Your task to perform on an android device: check android version Image 0: 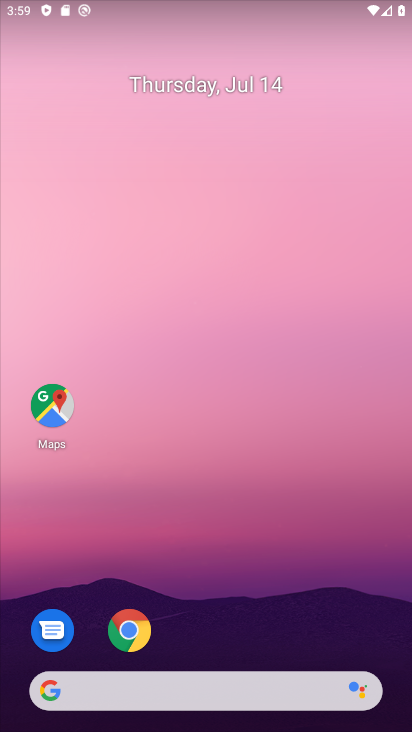
Step 0: drag from (217, 654) to (239, 6)
Your task to perform on an android device: check android version Image 1: 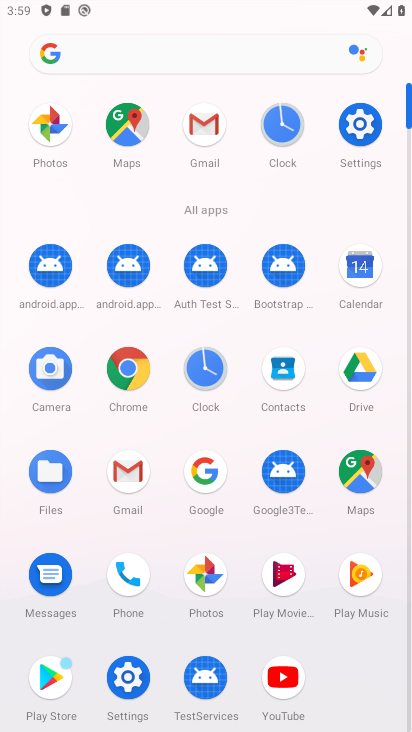
Step 1: click (362, 119)
Your task to perform on an android device: check android version Image 2: 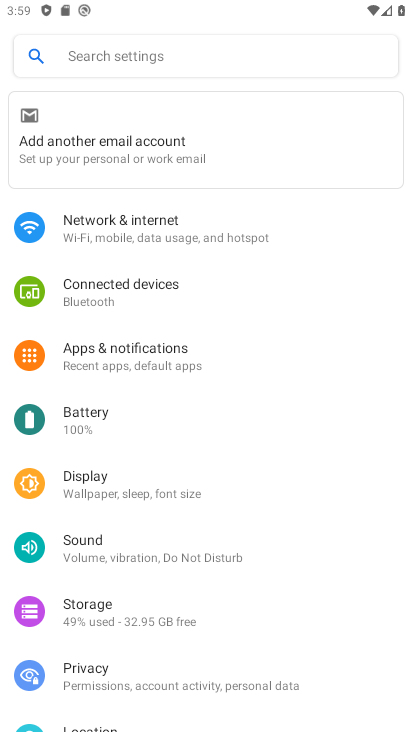
Step 2: drag from (182, 659) to (213, 64)
Your task to perform on an android device: check android version Image 3: 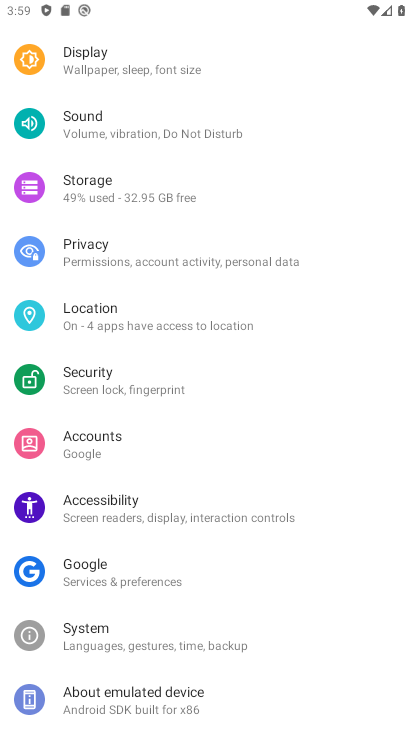
Step 3: click (164, 688)
Your task to perform on an android device: check android version Image 4: 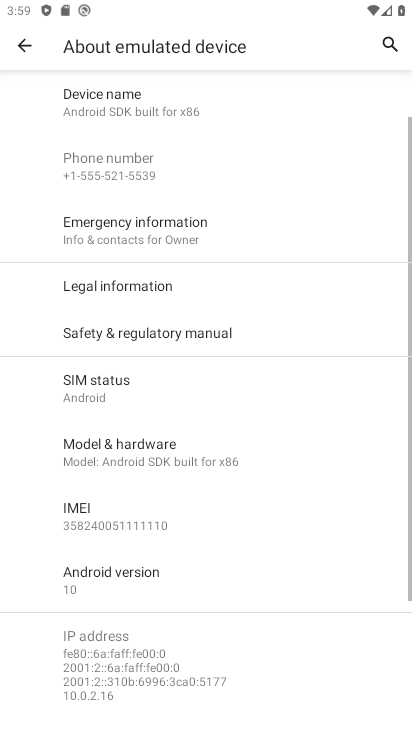
Step 4: click (124, 581)
Your task to perform on an android device: check android version Image 5: 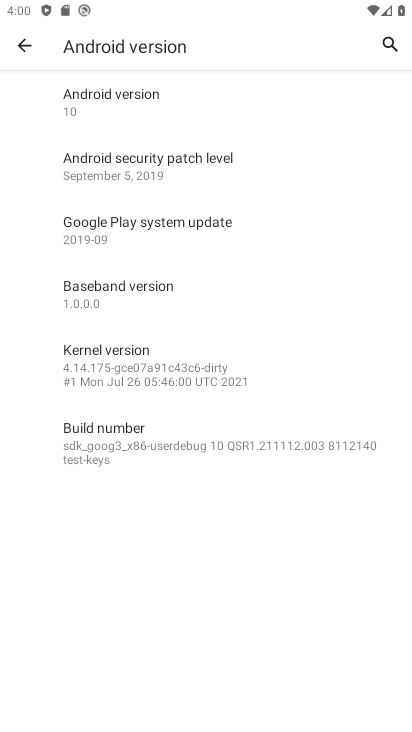
Step 5: click (100, 102)
Your task to perform on an android device: check android version Image 6: 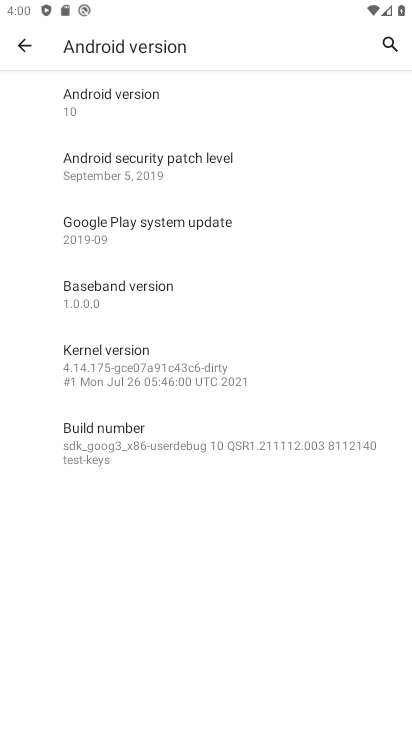
Step 6: task complete